Your task to perform on an android device: Search for vegetarian restaurants on Maps Image 0: 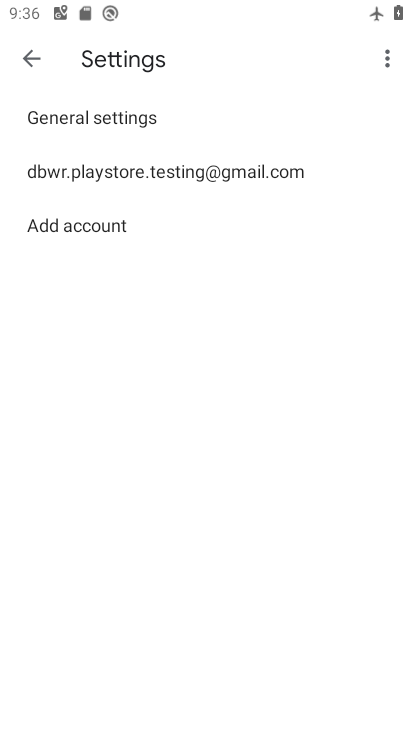
Step 0: press home button
Your task to perform on an android device: Search for vegetarian restaurants on Maps Image 1: 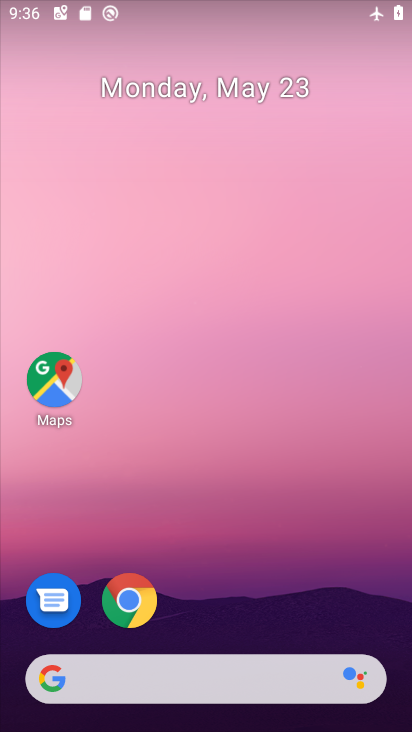
Step 1: drag from (222, 727) to (231, 115)
Your task to perform on an android device: Search for vegetarian restaurants on Maps Image 2: 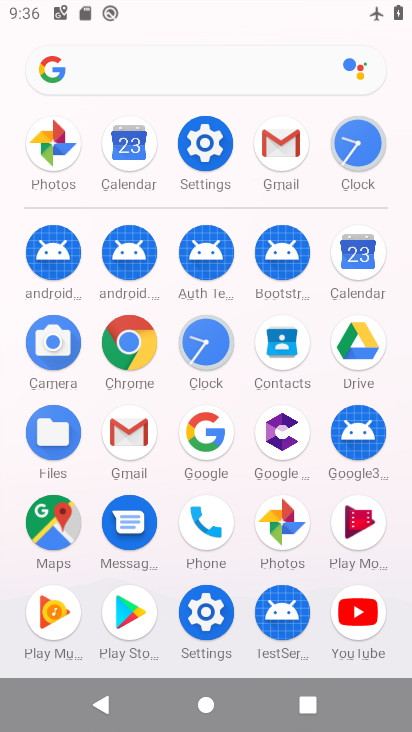
Step 2: click (45, 520)
Your task to perform on an android device: Search for vegetarian restaurants on Maps Image 3: 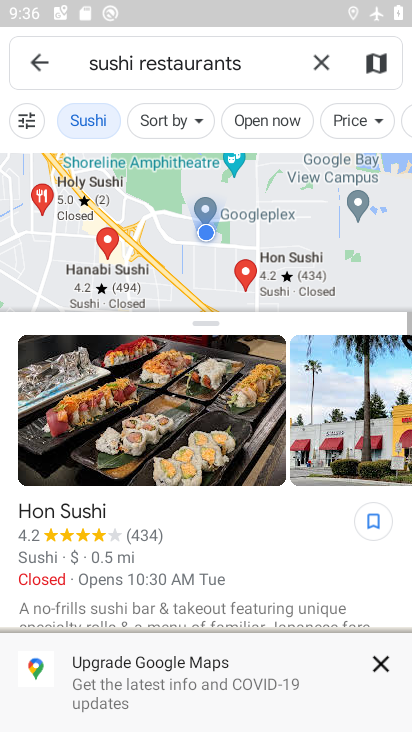
Step 3: click (320, 56)
Your task to perform on an android device: Search for vegetarian restaurants on Maps Image 4: 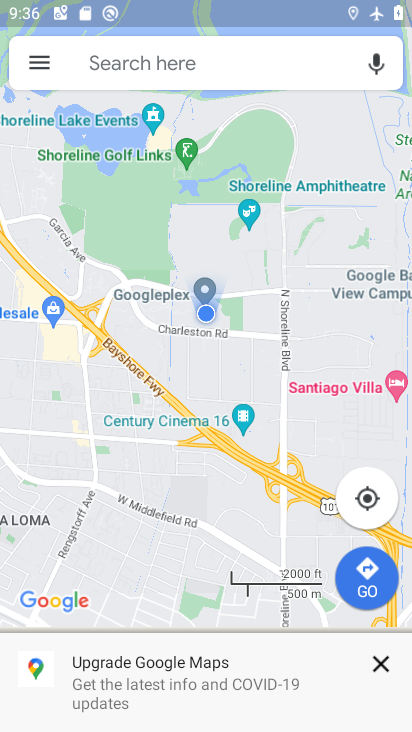
Step 4: click (173, 64)
Your task to perform on an android device: Search for vegetarian restaurants on Maps Image 5: 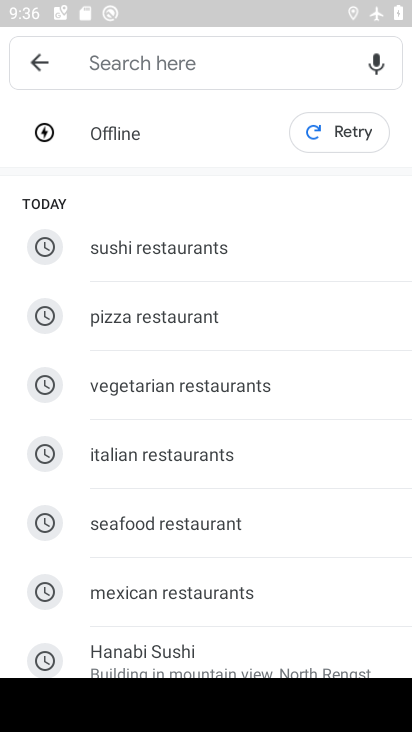
Step 5: type "vegetarian restaurants"
Your task to perform on an android device: Search for vegetarian restaurants on Maps Image 6: 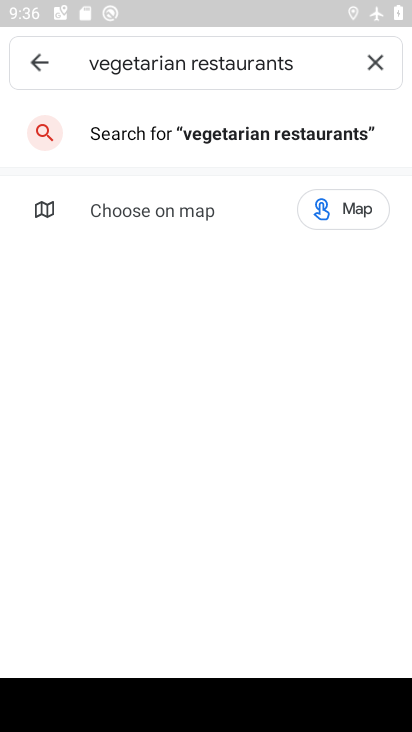
Step 6: click (219, 132)
Your task to perform on an android device: Search for vegetarian restaurants on Maps Image 7: 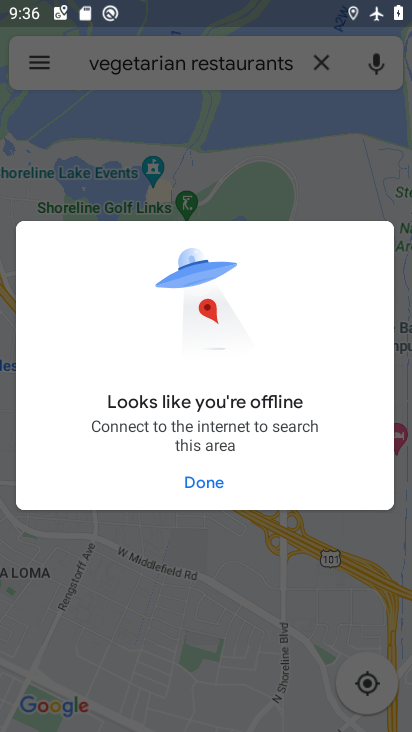
Step 7: task complete